Your task to perform on an android device: What's the weather today? Image 0: 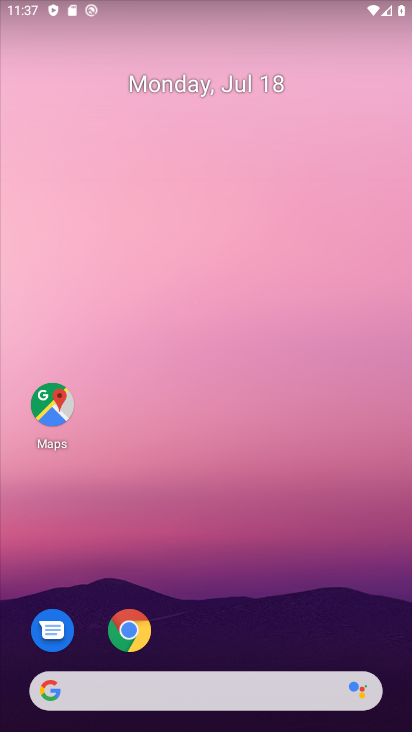
Step 0: click (183, 698)
Your task to perform on an android device: What's the weather today? Image 1: 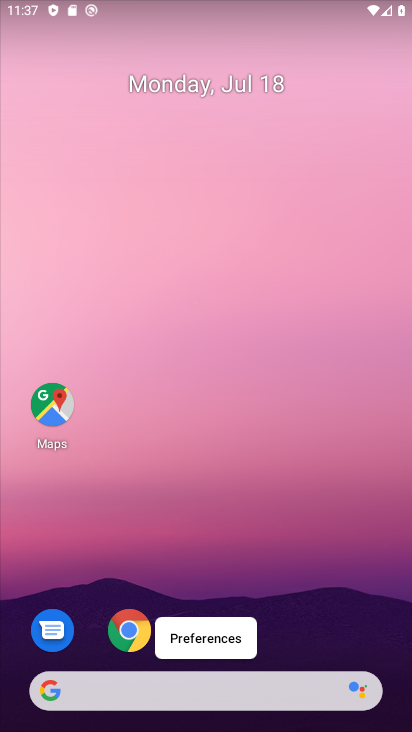
Step 1: click (176, 704)
Your task to perform on an android device: What's the weather today? Image 2: 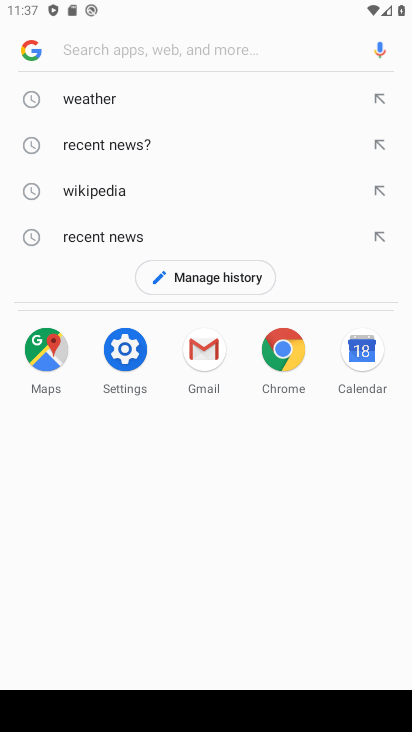
Step 2: click (94, 99)
Your task to perform on an android device: What's the weather today? Image 3: 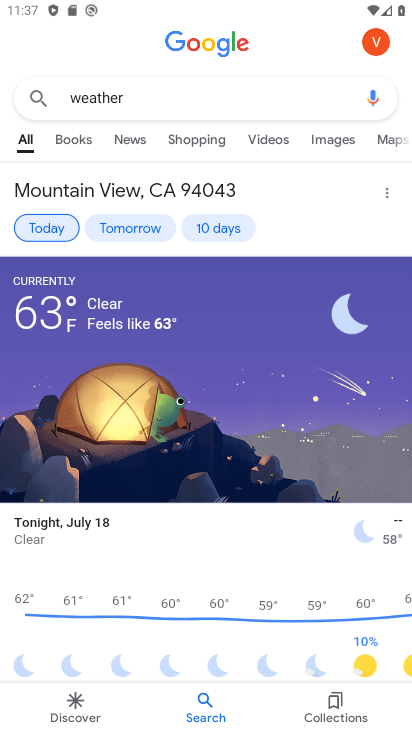
Step 3: task complete